Your task to perform on an android device: Search for macbook pro 13 inch on costco.com, select the first entry, and add it to the cart. Image 0: 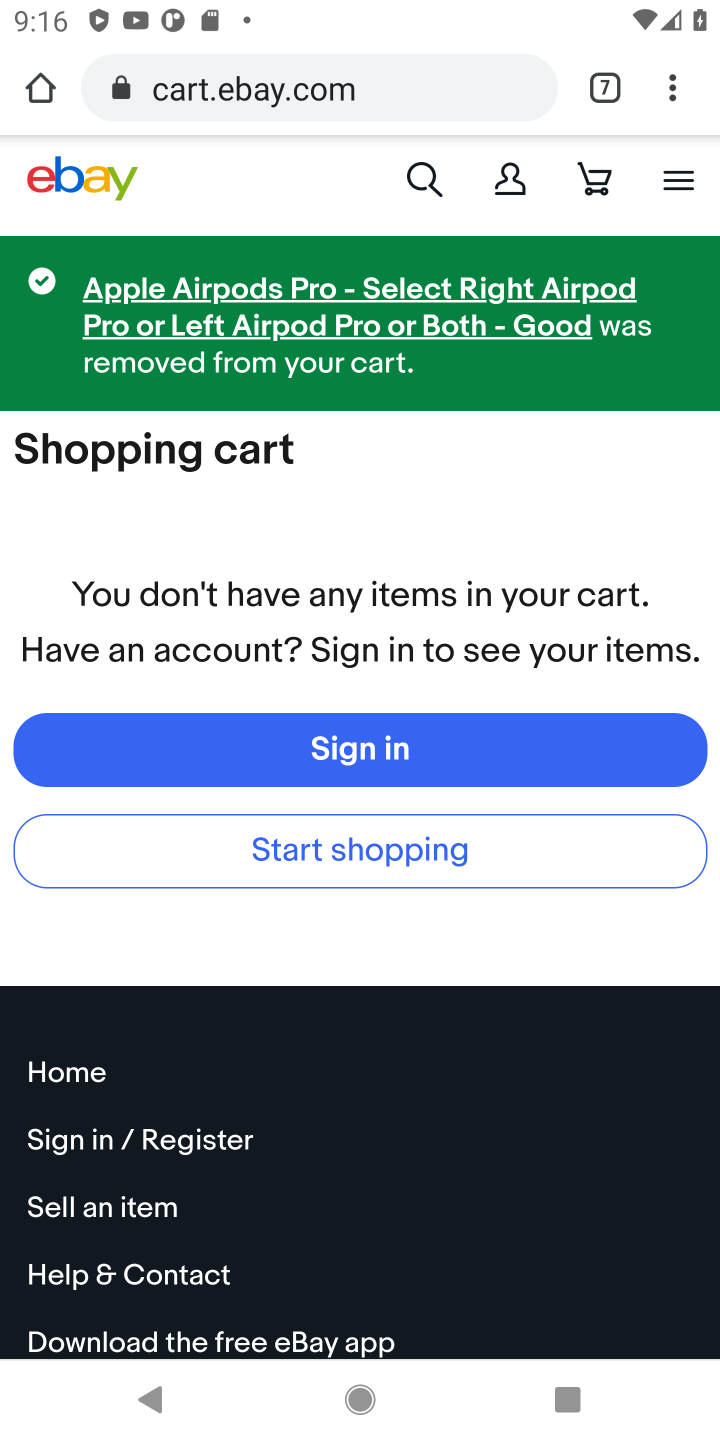
Step 0: press home button
Your task to perform on an android device: Search for macbook pro 13 inch on costco.com, select the first entry, and add it to the cart. Image 1: 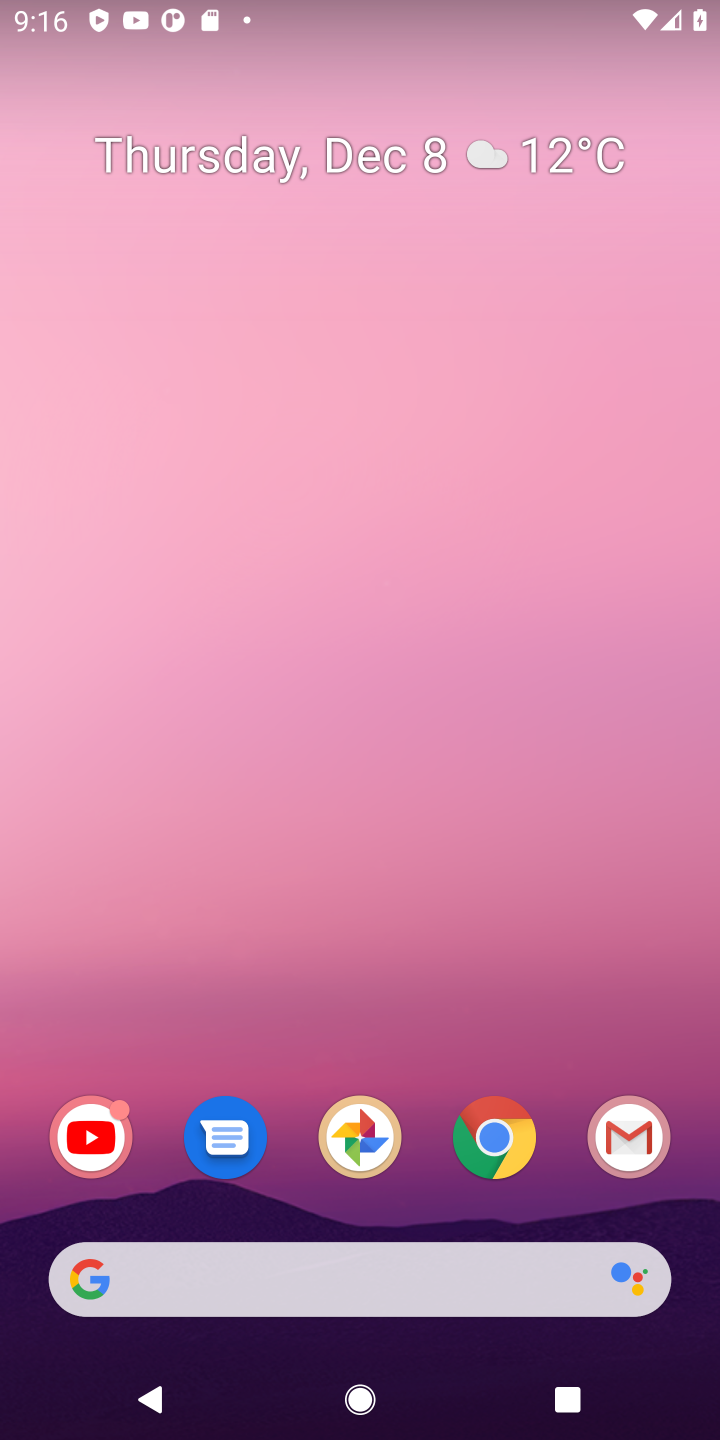
Step 1: click (483, 1116)
Your task to perform on an android device: Search for macbook pro 13 inch on costco.com, select the first entry, and add it to the cart. Image 2: 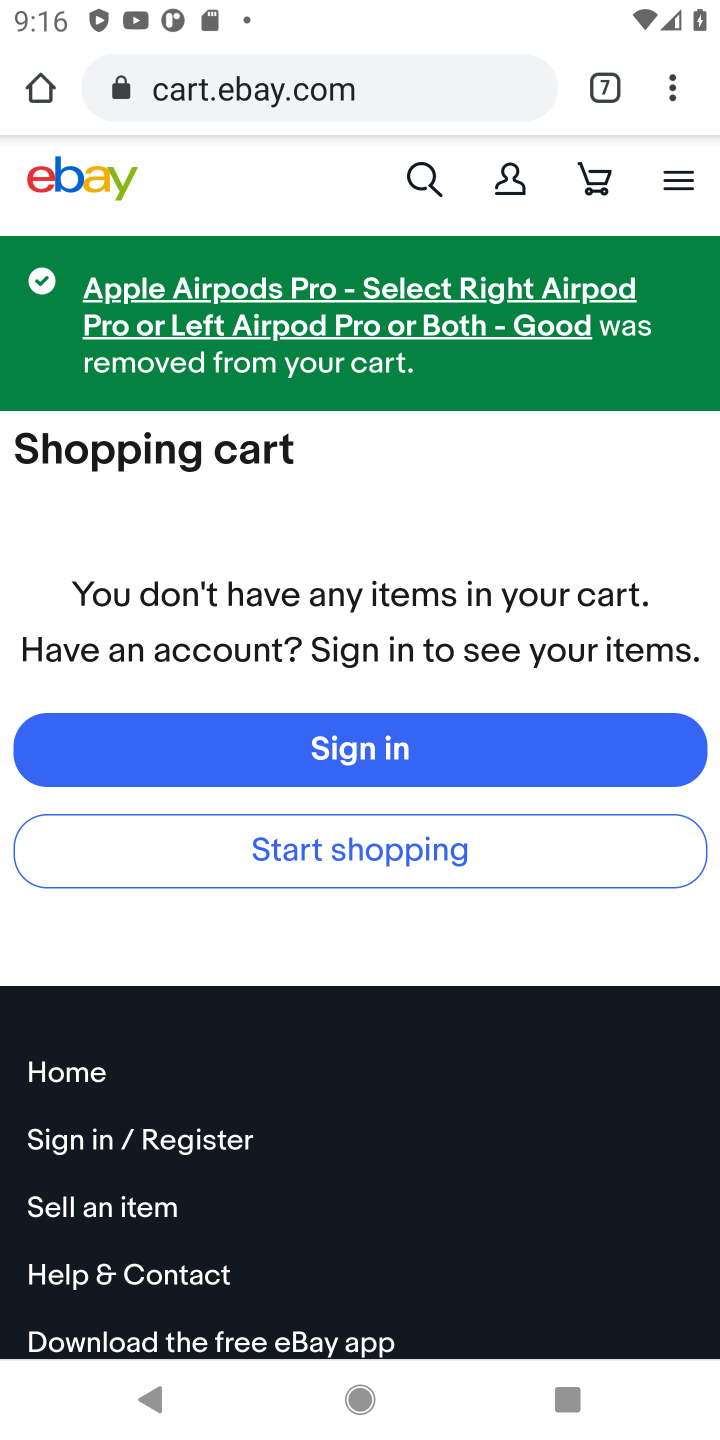
Step 2: click (600, 93)
Your task to perform on an android device: Search for macbook pro 13 inch on costco.com, select the first entry, and add it to the cart. Image 3: 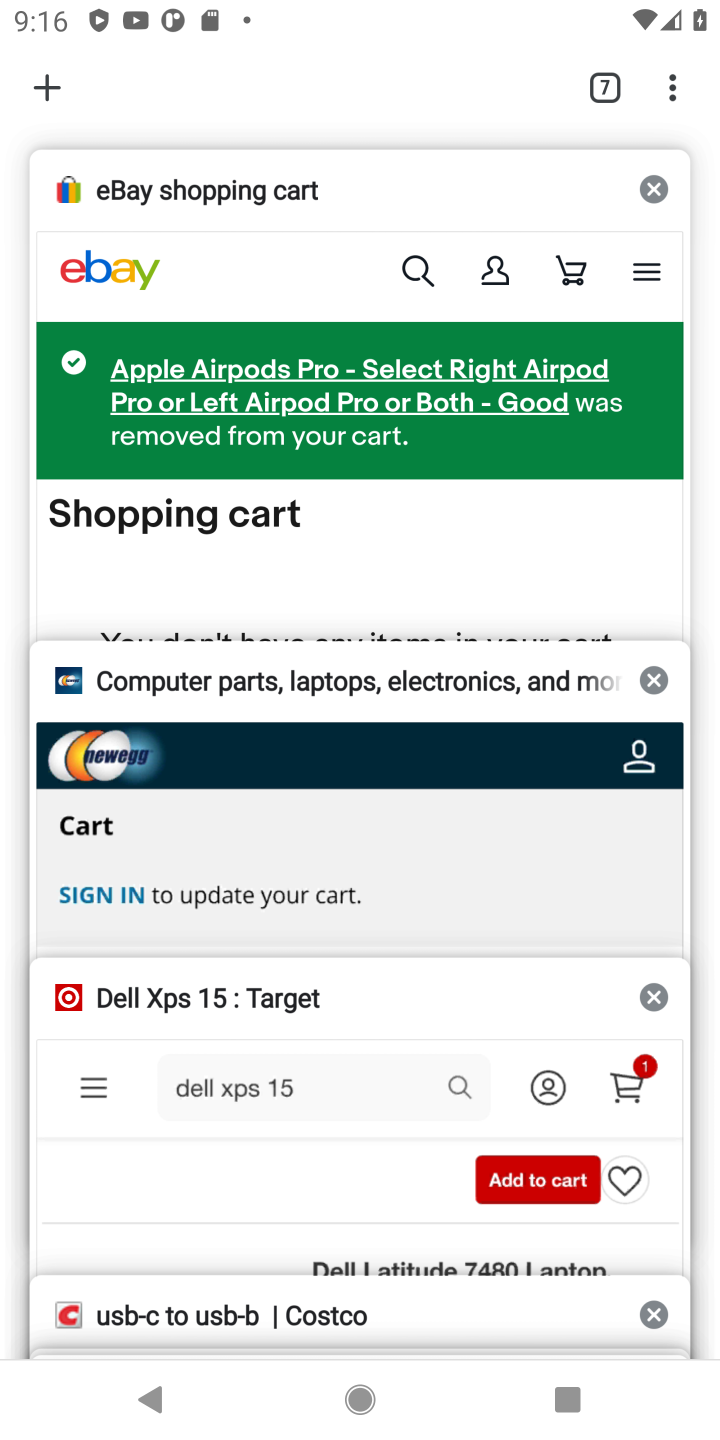
Step 3: click (162, 1314)
Your task to perform on an android device: Search for macbook pro 13 inch on costco.com, select the first entry, and add it to the cart. Image 4: 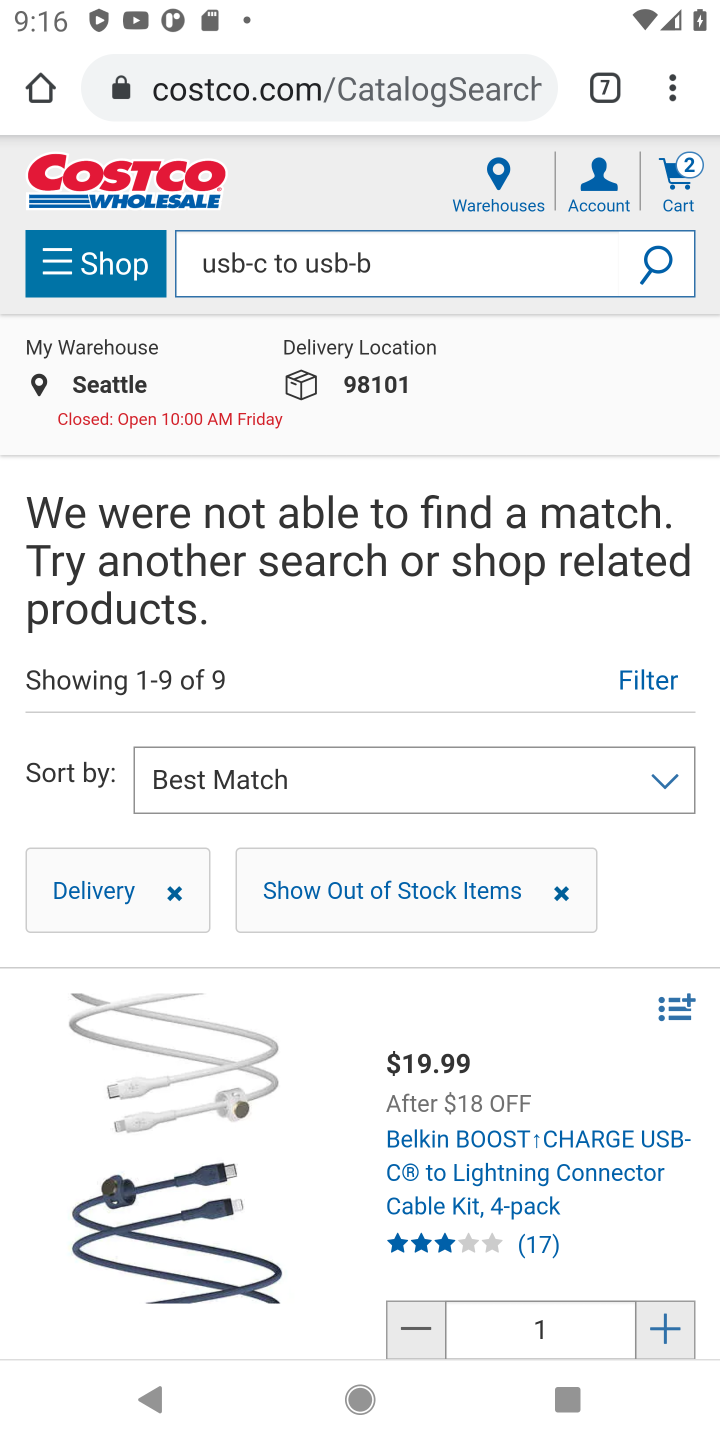
Step 4: click (381, 279)
Your task to perform on an android device: Search for macbook pro 13 inch on costco.com, select the first entry, and add it to the cart. Image 5: 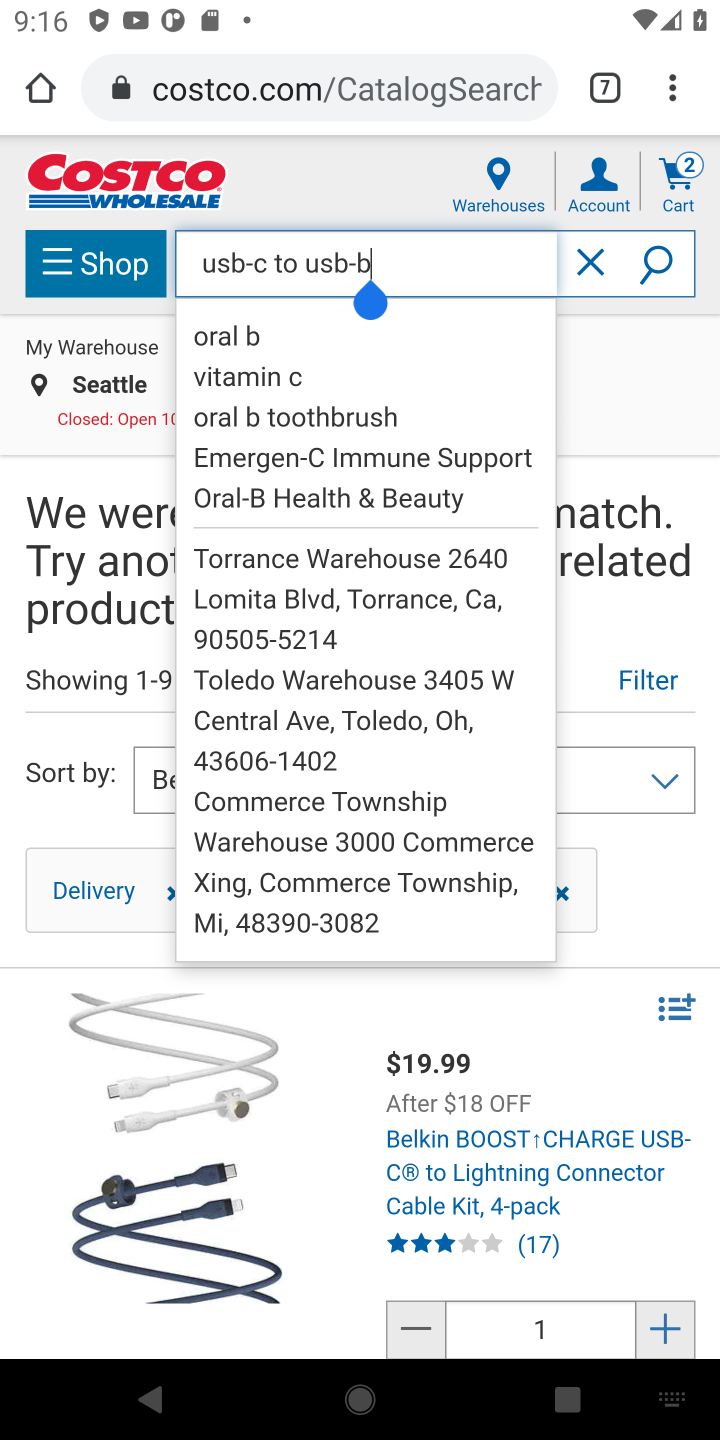
Step 5: click (590, 269)
Your task to perform on an android device: Search for macbook pro 13 inch on costco.com, select the first entry, and add it to the cart. Image 6: 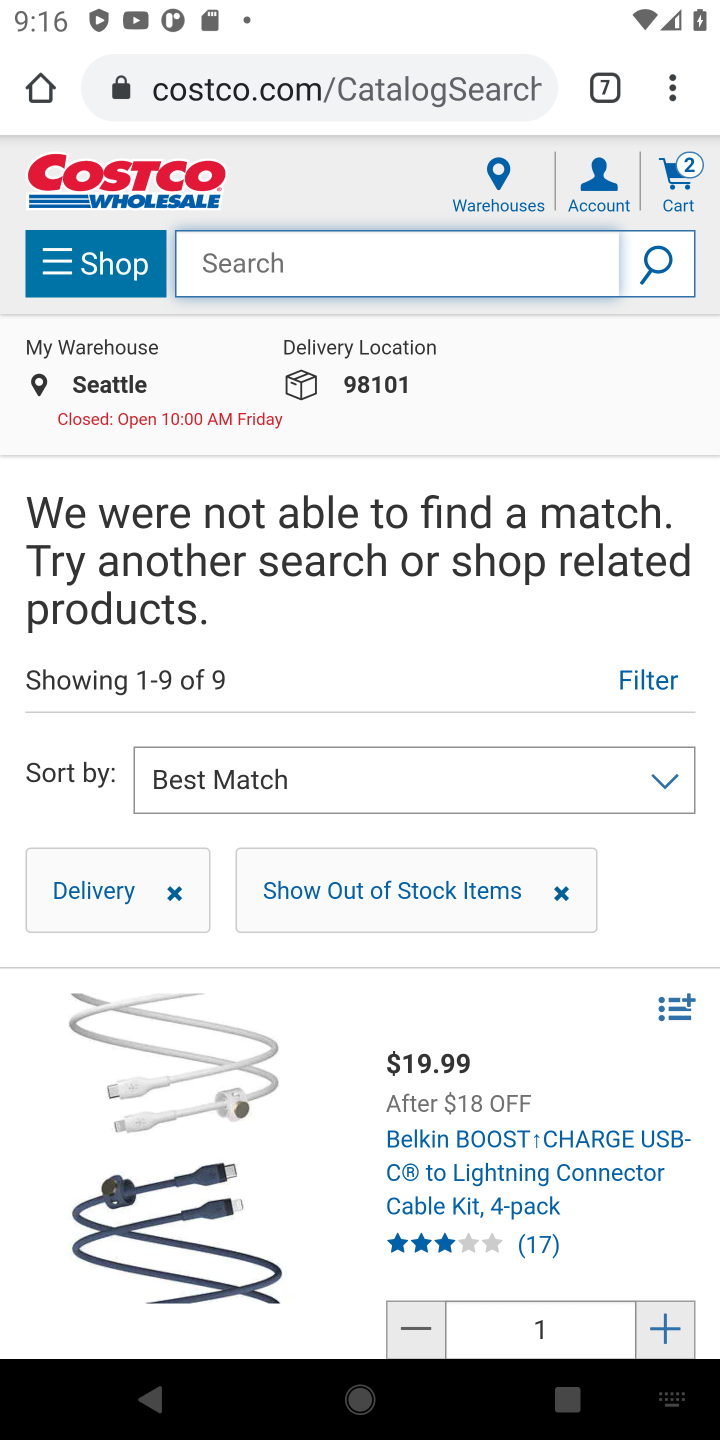
Step 6: type "macbook pro 13 inch"
Your task to perform on an android device: Search for macbook pro 13 inch on costco.com, select the first entry, and add it to the cart. Image 7: 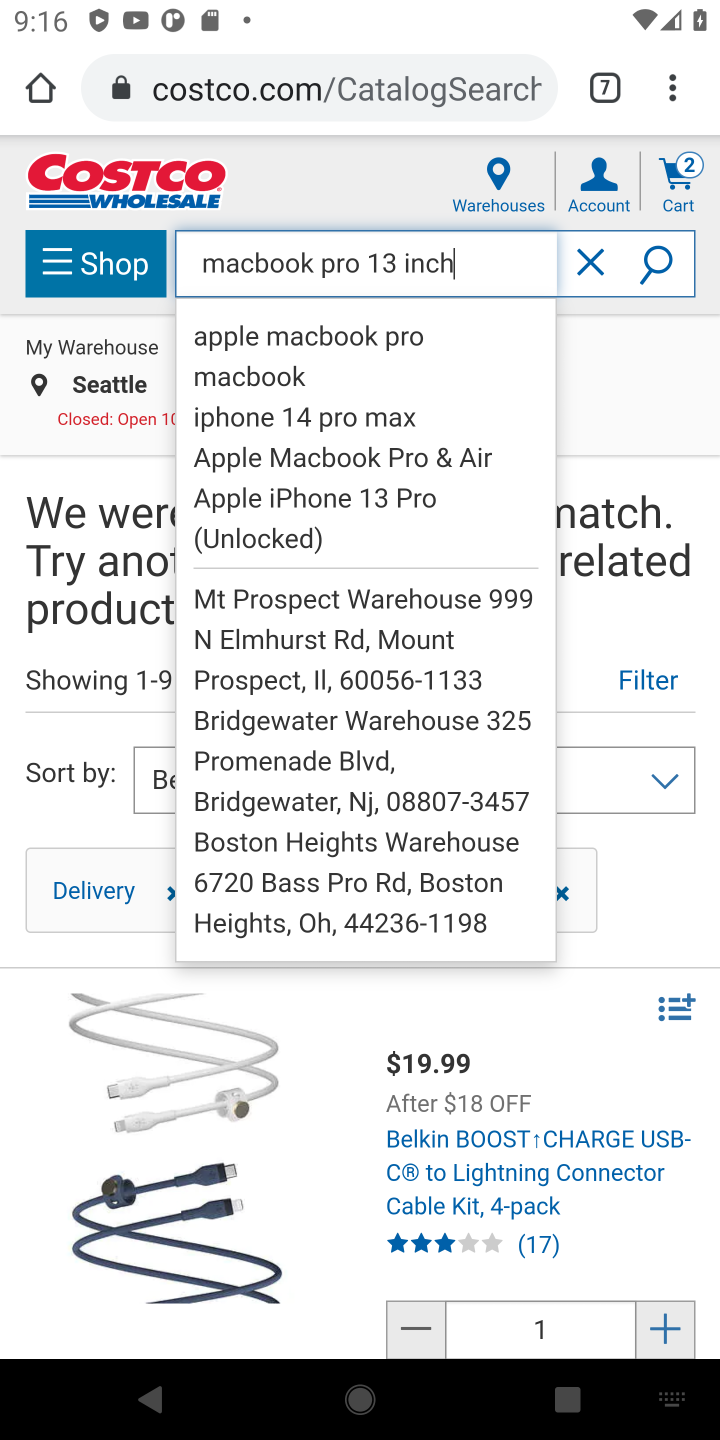
Step 7: click (660, 253)
Your task to perform on an android device: Search for macbook pro 13 inch on costco.com, select the first entry, and add it to the cart. Image 8: 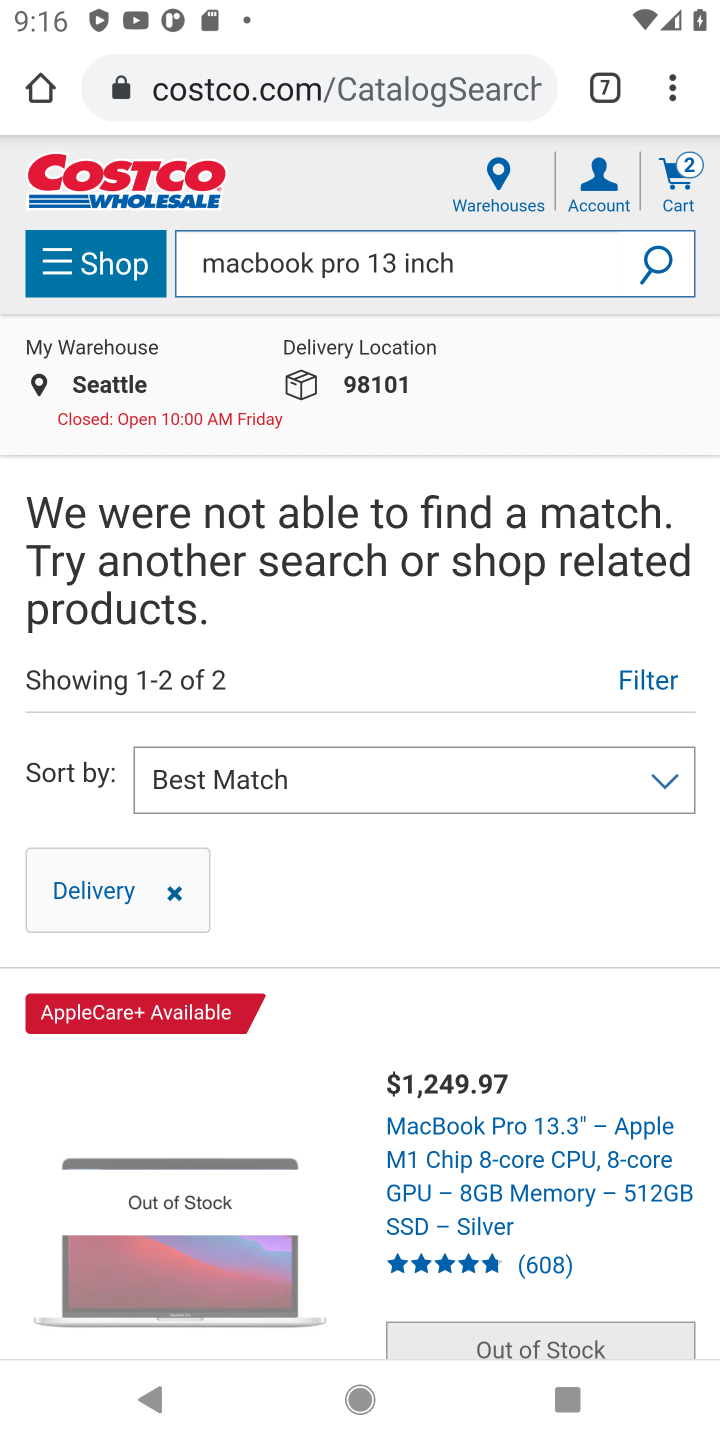
Step 8: task complete